Your task to perform on an android device: allow notifications from all sites in the chrome app Image 0: 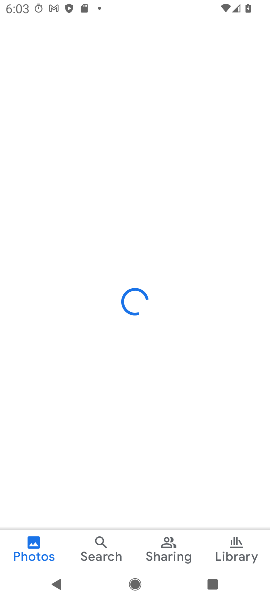
Step 0: press home button
Your task to perform on an android device: allow notifications from all sites in the chrome app Image 1: 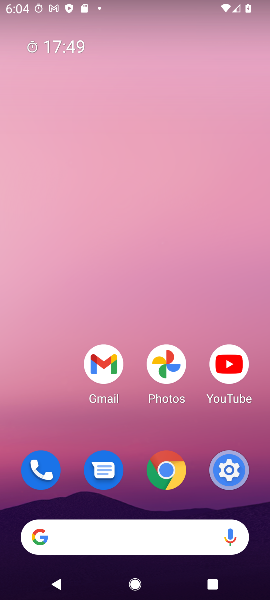
Step 1: drag from (31, 395) to (117, 38)
Your task to perform on an android device: allow notifications from all sites in the chrome app Image 2: 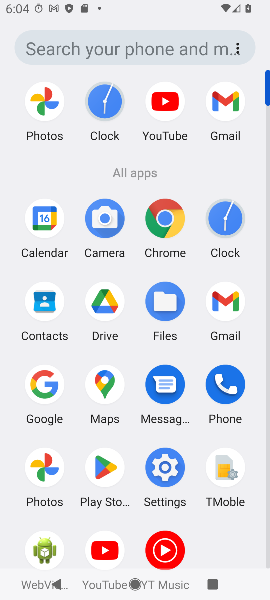
Step 2: click (163, 221)
Your task to perform on an android device: allow notifications from all sites in the chrome app Image 3: 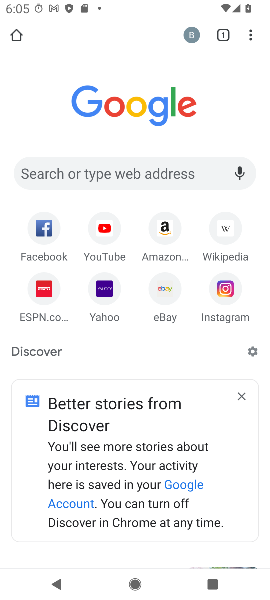
Step 3: press home button
Your task to perform on an android device: allow notifications from all sites in the chrome app Image 4: 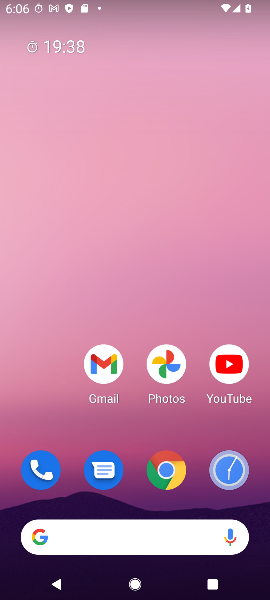
Step 4: click (160, 479)
Your task to perform on an android device: allow notifications from all sites in the chrome app Image 5: 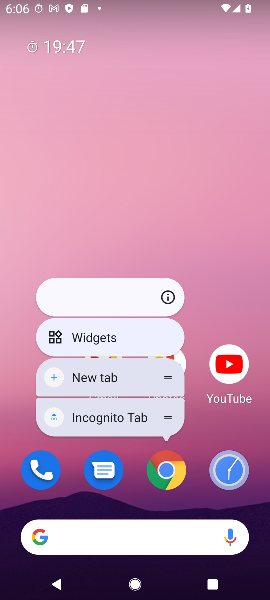
Step 5: click (166, 295)
Your task to perform on an android device: allow notifications from all sites in the chrome app Image 6: 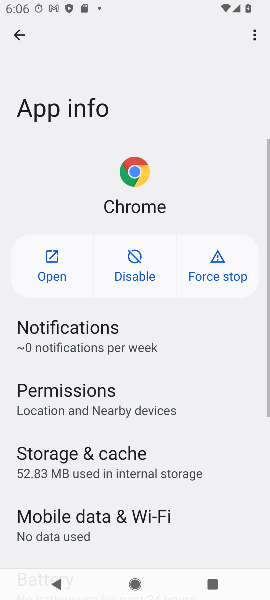
Step 6: drag from (155, 494) to (135, 332)
Your task to perform on an android device: allow notifications from all sites in the chrome app Image 7: 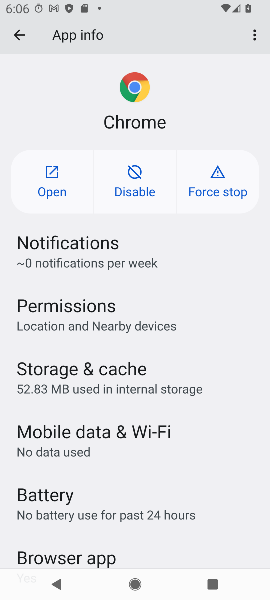
Step 7: click (113, 315)
Your task to perform on an android device: allow notifications from all sites in the chrome app Image 8: 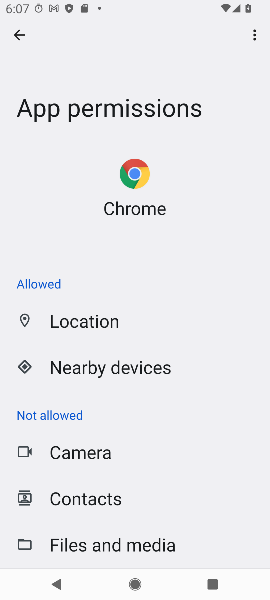
Step 8: task complete